Your task to perform on an android device: make emails show in primary in the gmail app Image 0: 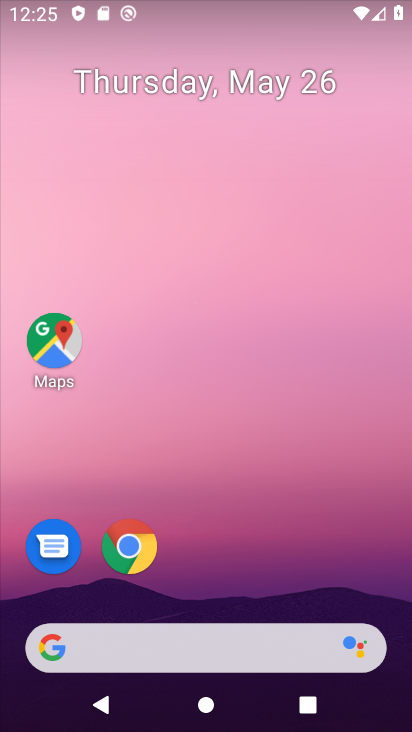
Step 0: drag from (399, 619) to (299, 102)
Your task to perform on an android device: make emails show in primary in the gmail app Image 1: 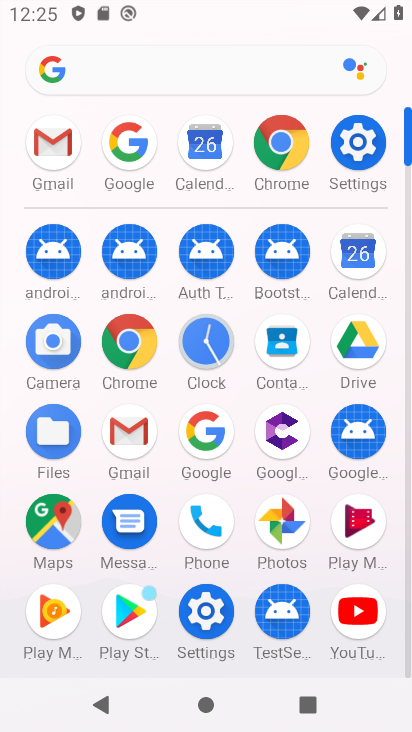
Step 1: click (145, 449)
Your task to perform on an android device: make emails show in primary in the gmail app Image 2: 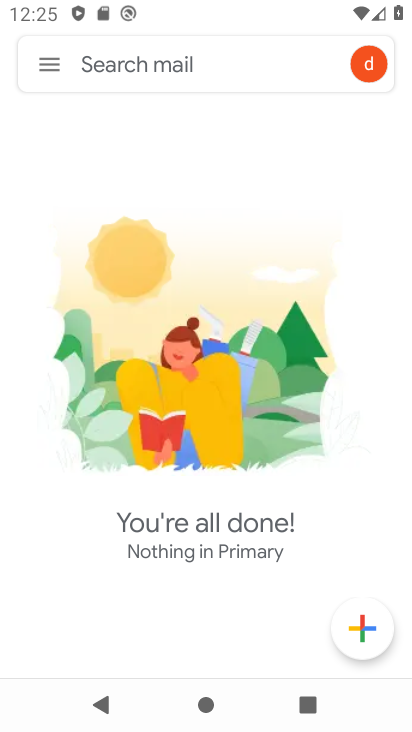
Step 2: task complete